Your task to perform on an android device: toggle location history Image 0: 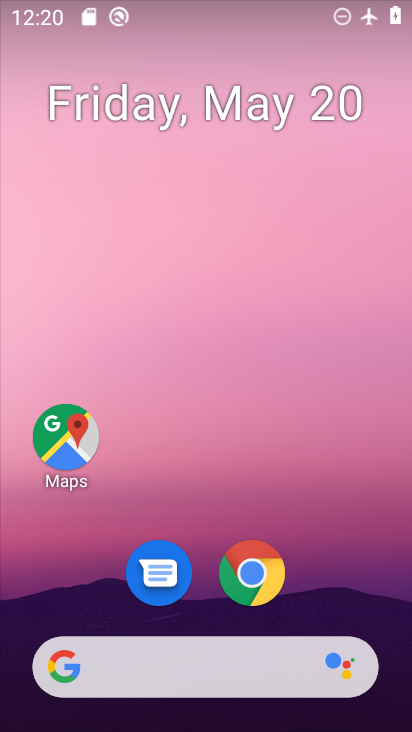
Step 0: drag from (235, 655) to (211, 86)
Your task to perform on an android device: toggle location history Image 1: 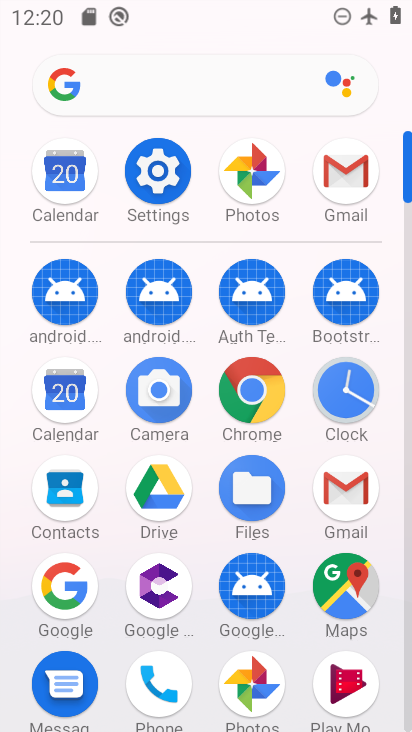
Step 1: click (158, 176)
Your task to perform on an android device: toggle location history Image 2: 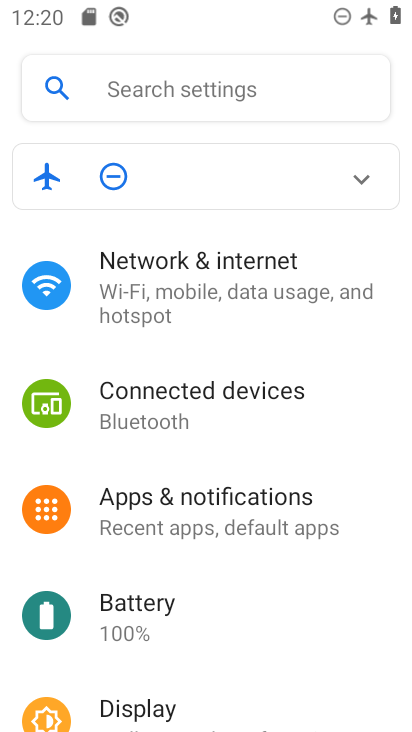
Step 2: drag from (204, 669) to (193, 329)
Your task to perform on an android device: toggle location history Image 3: 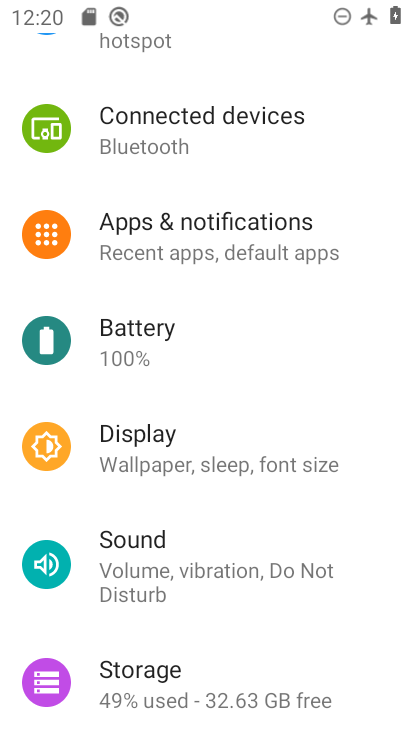
Step 3: drag from (199, 644) to (205, 289)
Your task to perform on an android device: toggle location history Image 4: 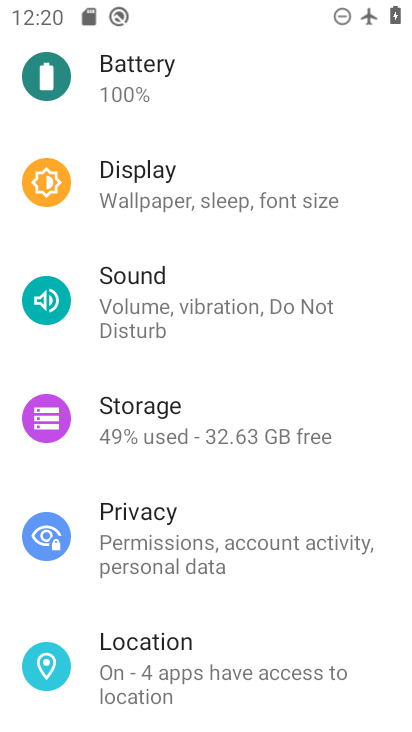
Step 4: click (184, 659)
Your task to perform on an android device: toggle location history Image 5: 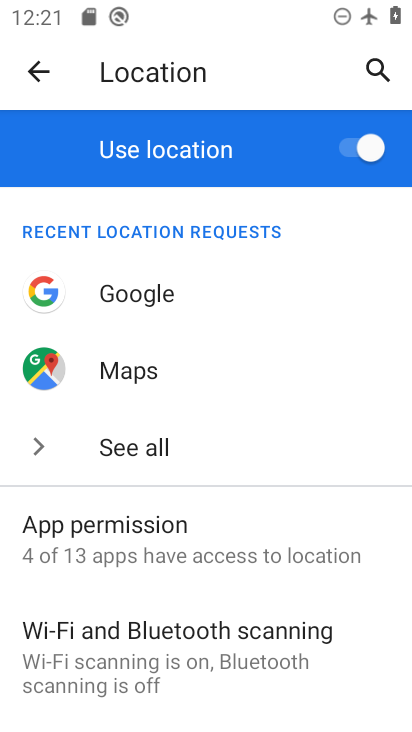
Step 5: drag from (190, 689) to (188, 337)
Your task to perform on an android device: toggle location history Image 6: 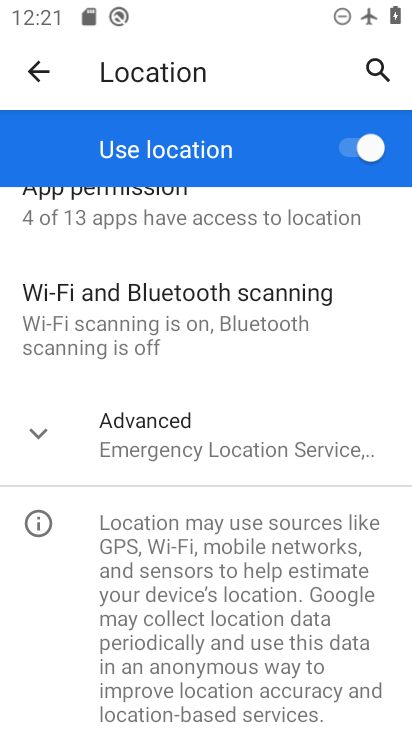
Step 6: click (196, 440)
Your task to perform on an android device: toggle location history Image 7: 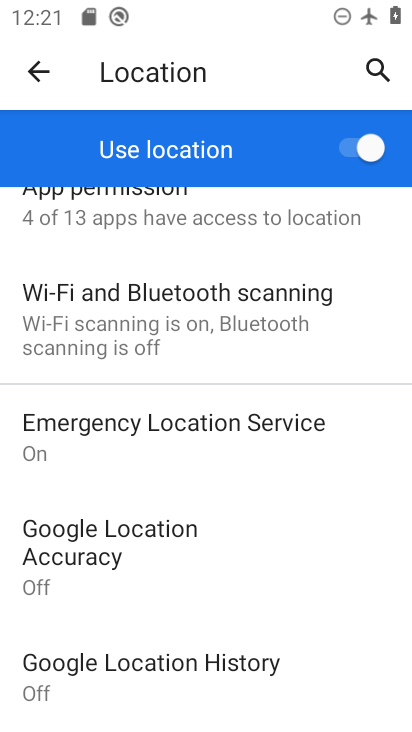
Step 7: click (151, 661)
Your task to perform on an android device: toggle location history Image 8: 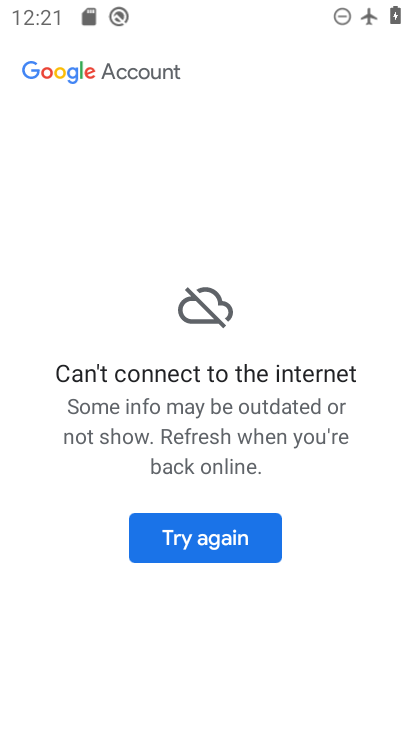
Step 8: task complete